Your task to perform on an android device: add a contact in the contacts app Image 0: 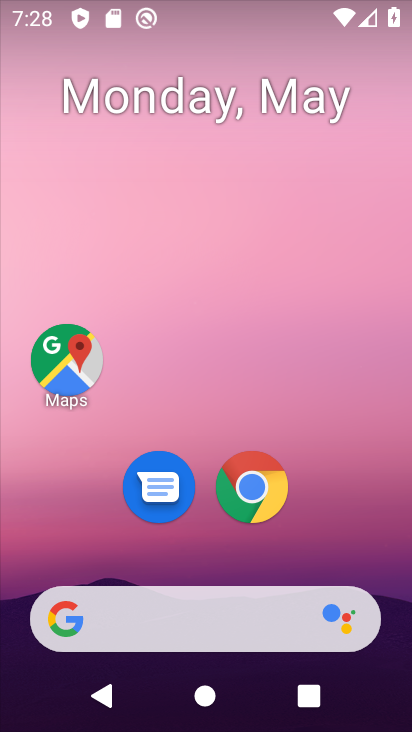
Step 0: drag from (330, 535) to (365, 144)
Your task to perform on an android device: add a contact in the contacts app Image 1: 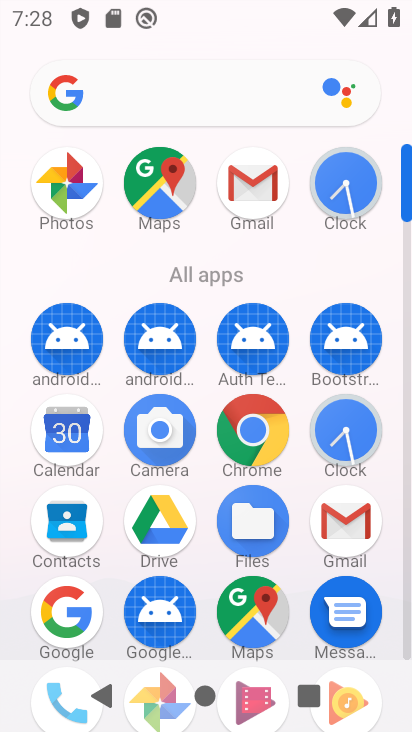
Step 1: click (81, 539)
Your task to perform on an android device: add a contact in the contacts app Image 2: 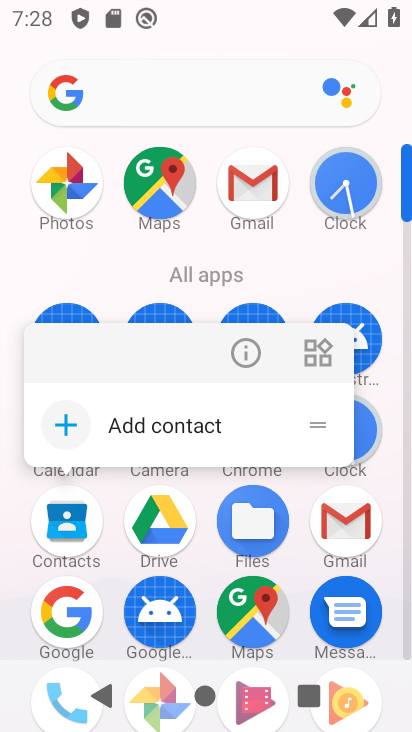
Step 2: click (81, 539)
Your task to perform on an android device: add a contact in the contacts app Image 3: 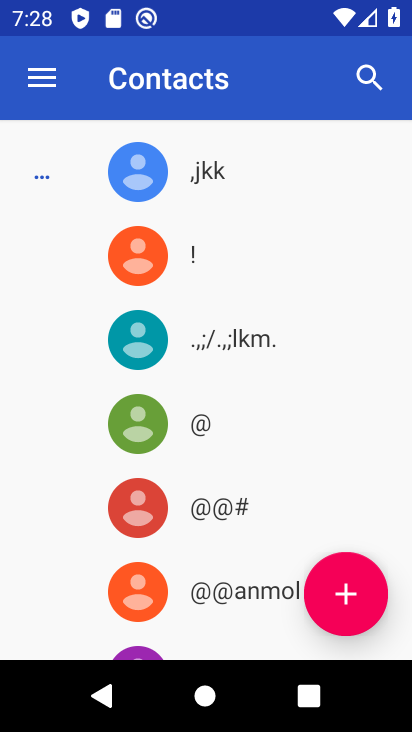
Step 3: click (348, 606)
Your task to perform on an android device: add a contact in the contacts app Image 4: 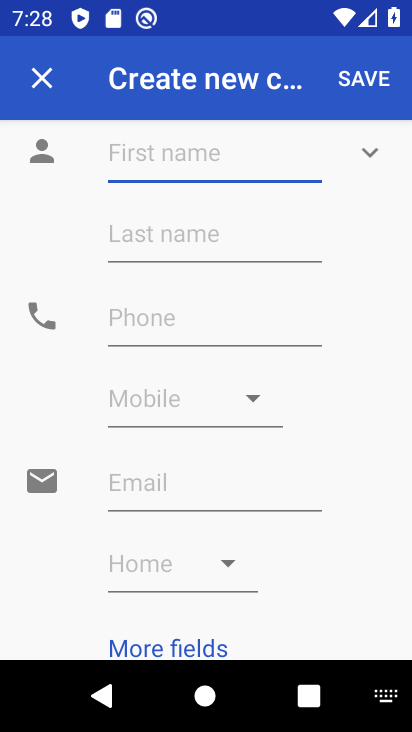
Step 4: click (268, 165)
Your task to perform on an android device: add a contact in the contacts app Image 5: 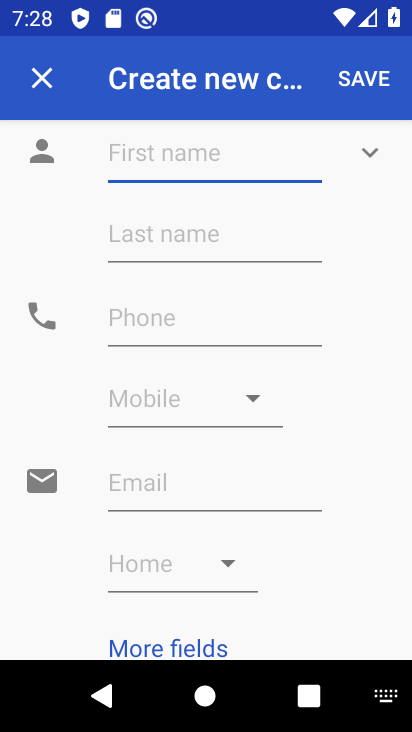
Step 5: type "lolloll"
Your task to perform on an android device: add a contact in the contacts app Image 6: 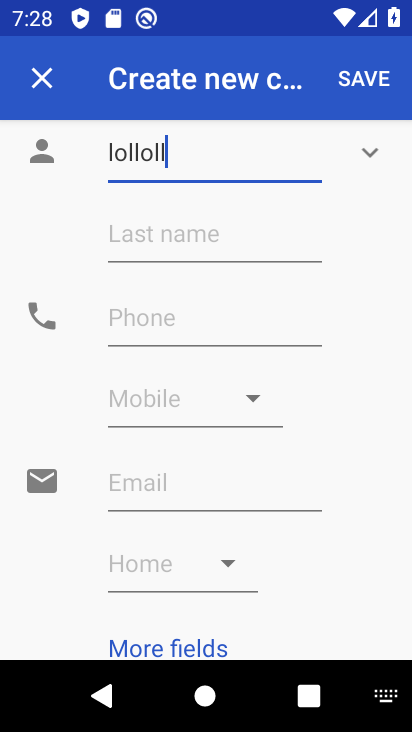
Step 6: click (150, 325)
Your task to perform on an android device: add a contact in the contacts app Image 7: 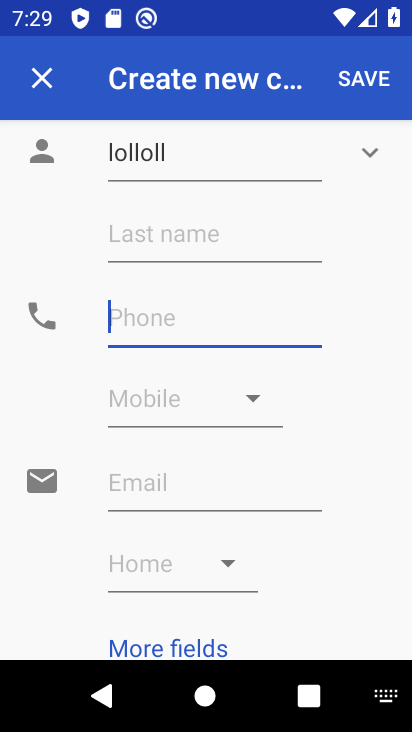
Step 7: type "12334556789"
Your task to perform on an android device: add a contact in the contacts app Image 8: 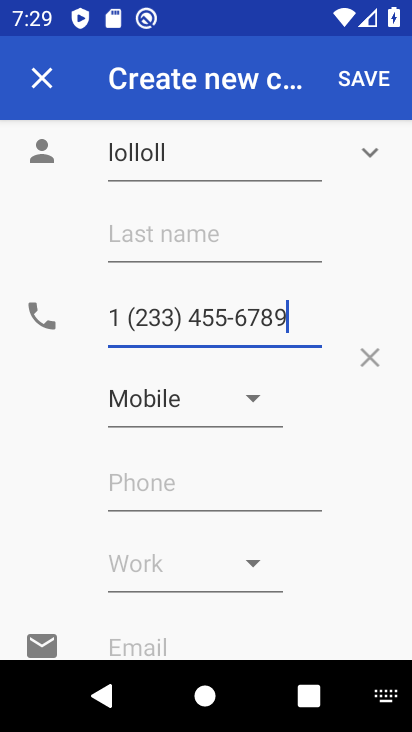
Step 8: click (383, 93)
Your task to perform on an android device: add a contact in the contacts app Image 9: 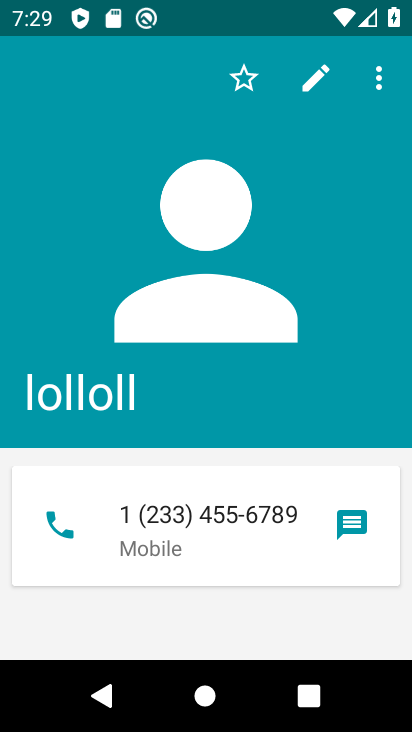
Step 9: task complete